Your task to perform on an android device: Open Maps and search for coffee Image 0: 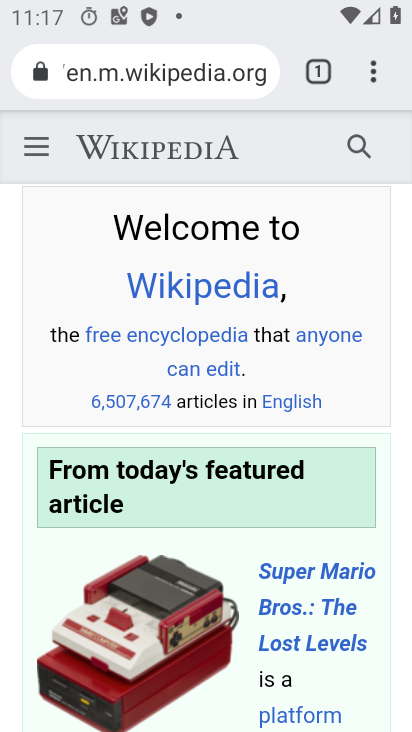
Step 0: press home button
Your task to perform on an android device: Open Maps and search for coffee Image 1: 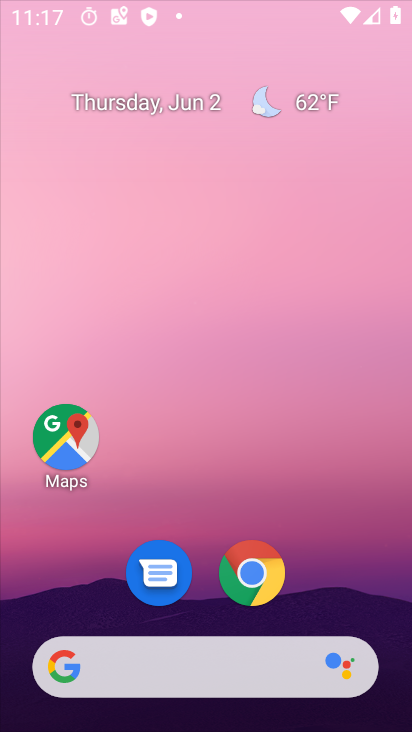
Step 1: drag from (221, 706) to (357, 131)
Your task to perform on an android device: Open Maps and search for coffee Image 2: 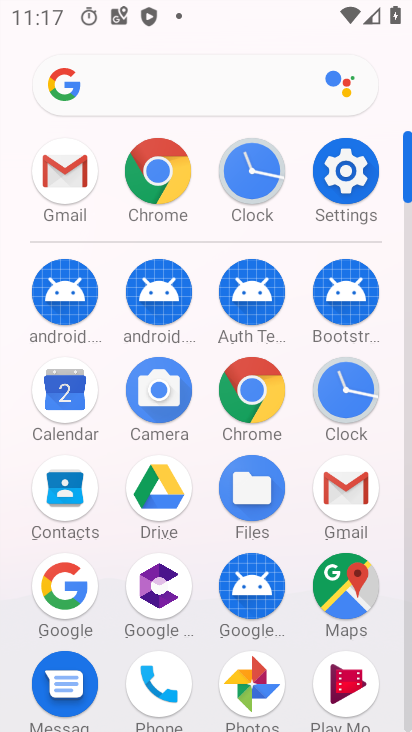
Step 2: click (372, 596)
Your task to perform on an android device: Open Maps and search for coffee Image 3: 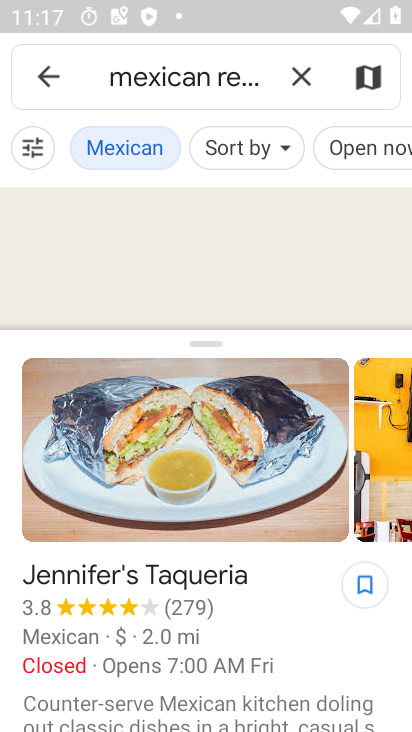
Step 3: click (301, 75)
Your task to perform on an android device: Open Maps and search for coffee Image 4: 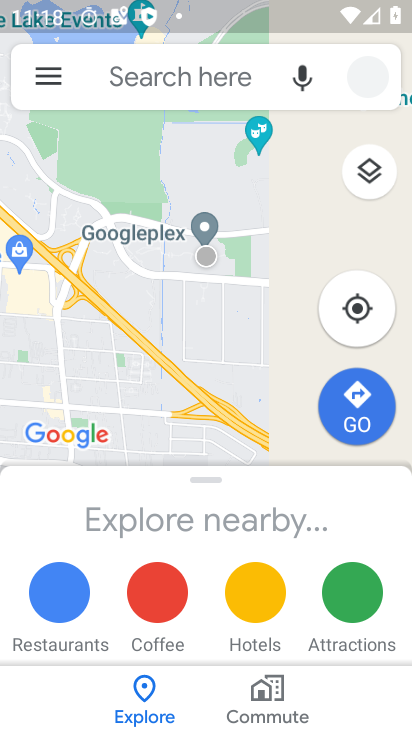
Step 4: click (199, 91)
Your task to perform on an android device: Open Maps and search for coffee Image 5: 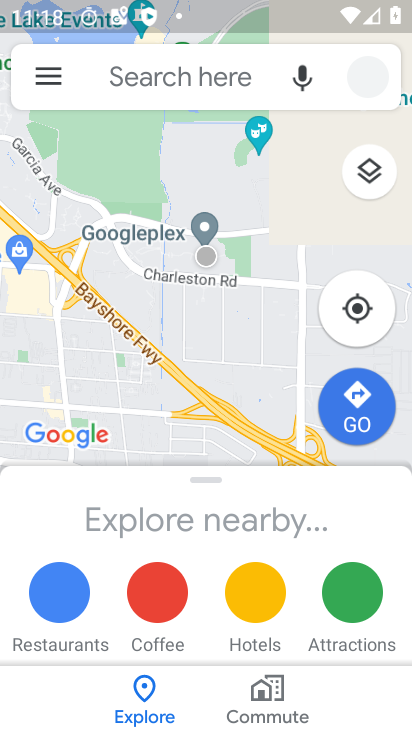
Step 5: click (199, 91)
Your task to perform on an android device: Open Maps and search for coffee Image 6: 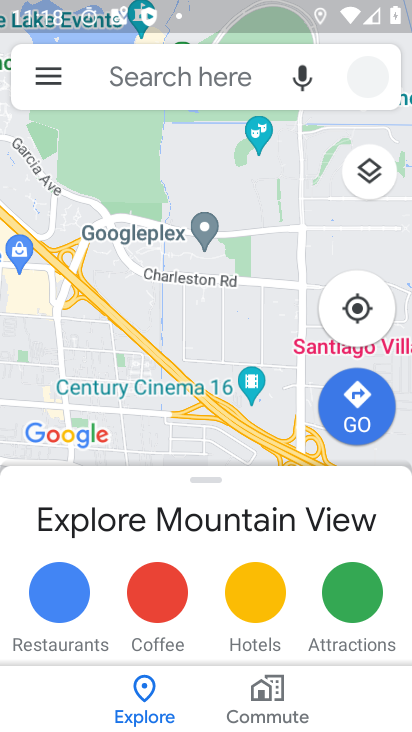
Step 6: click (199, 91)
Your task to perform on an android device: Open Maps and search for coffee Image 7: 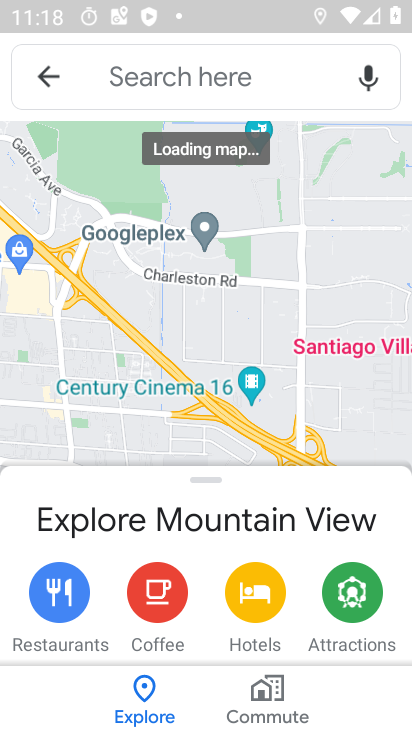
Step 7: click (199, 91)
Your task to perform on an android device: Open Maps and search for coffee Image 8: 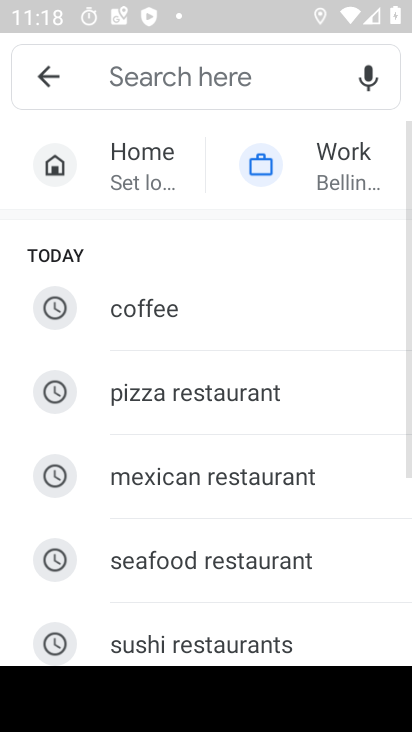
Step 8: click (209, 311)
Your task to perform on an android device: Open Maps and search for coffee Image 9: 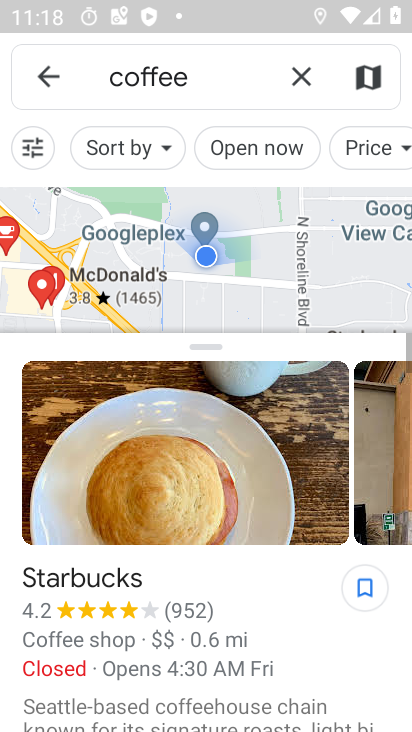
Step 9: task complete